Your task to perform on an android device: Open the calendar and show me this week's events? Image 0: 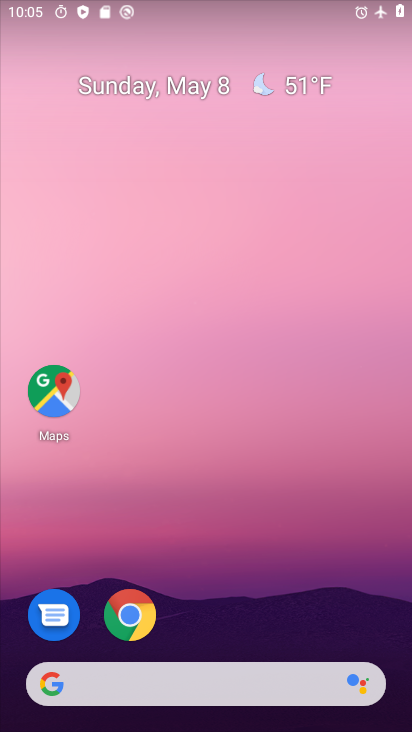
Step 0: drag from (206, 575) to (157, 172)
Your task to perform on an android device: Open the calendar and show me this week's events? Image 1: 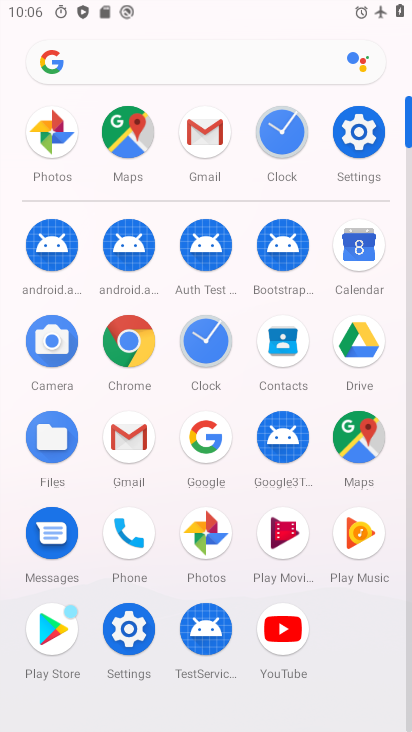
Step 1: click (356, 253)
Your task to perform on an android device: Open the calendar and show me this week's events? Image 2: 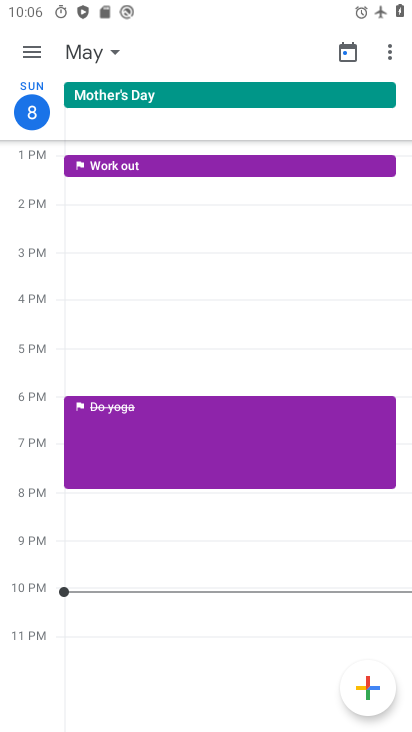
Step 2: click (86, 56)
Your task to perform on an android device: Open the calendar and show me this week's events? Image 3: 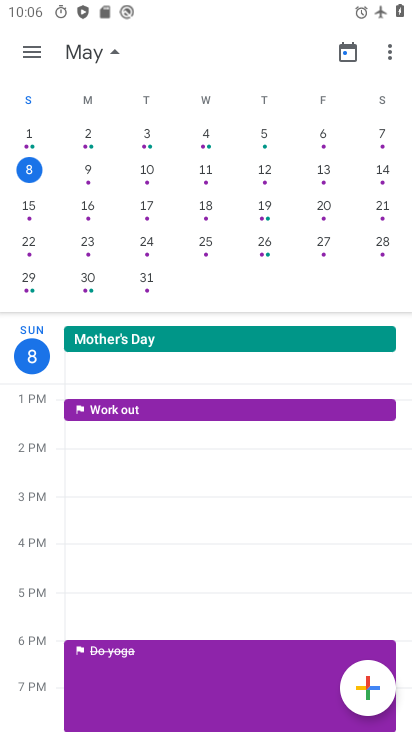
Step 3: click (153, 169)
Your task to perform on an android device: Open the calendar and show me this week's events? Image 4: 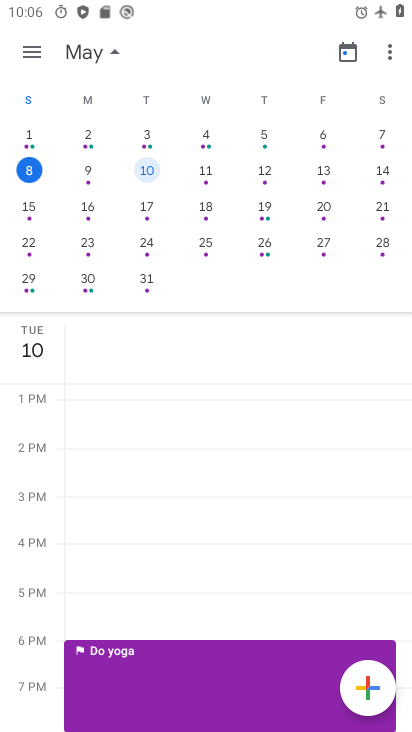
Step 4: click (204, 172)
Your task to perform on an android device: Open the calendar and show me this week's events? Image 5: 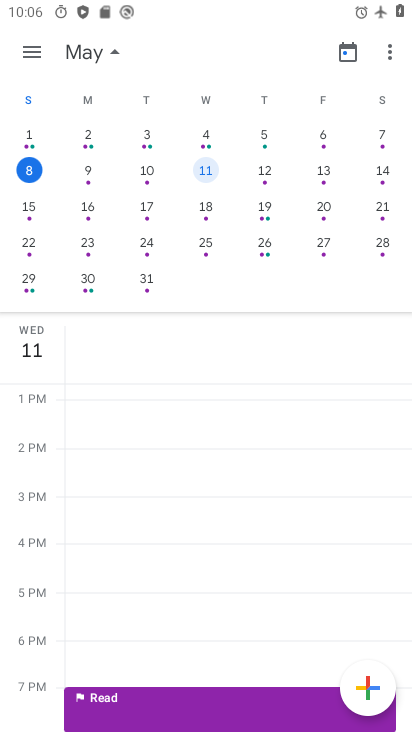
Step 5: drag from (221, 626) to (238, 316)
Your task to perform on an android device: Open the calendar and show me this week's events? Image 6: 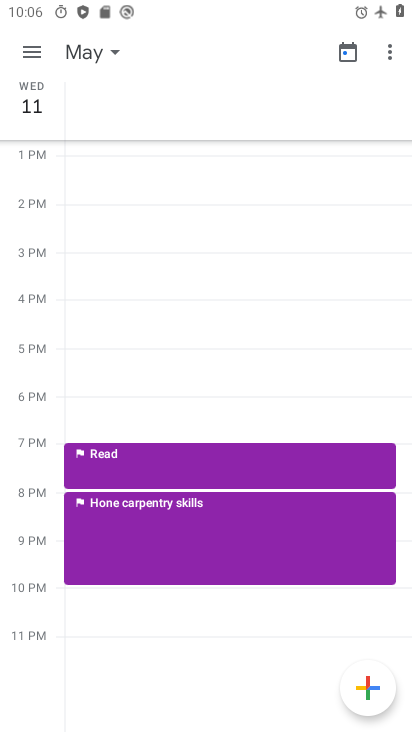
Step 6: drag from (163, 313) to (196, 591)
Your task to perform on an android device: Open the calendar and show me this week's events? Image 7: 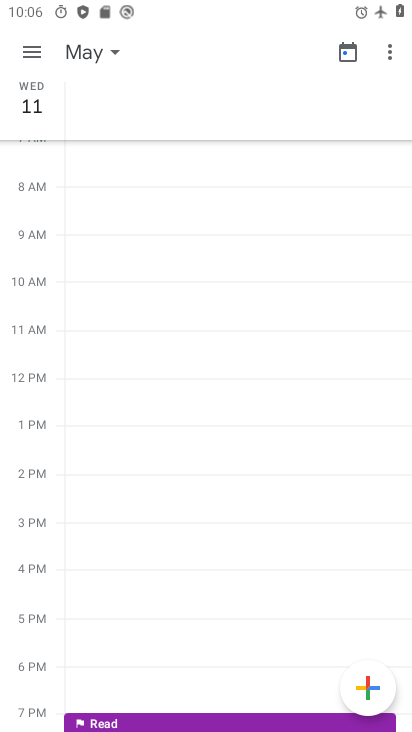
Step 7: drag from (221, 243) to (237, 394)
Your task to perform on an android device: Open the calendar and show me this week's events? Image 8: 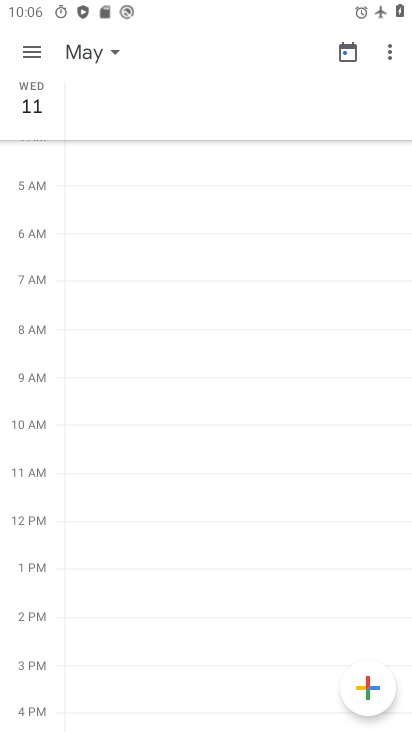
Step 8: click (101, 48)
Your task to perform on an android device: Open the calendar and show me this week's events? Image 9: 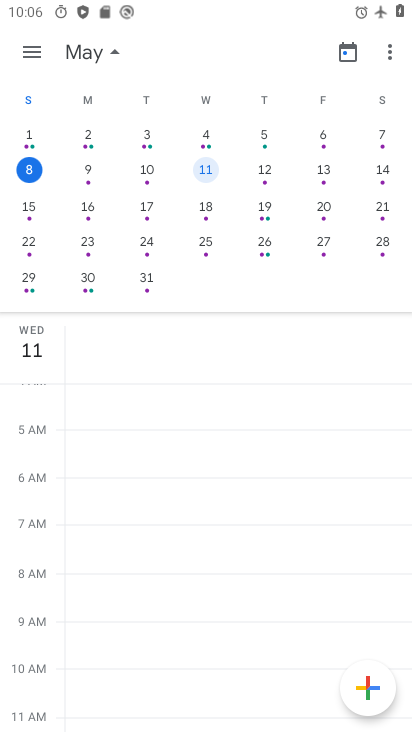
Step 9: click (74, 162)
Your task to perform on an android device: Open the calendar and show me this week's events? Image 10: 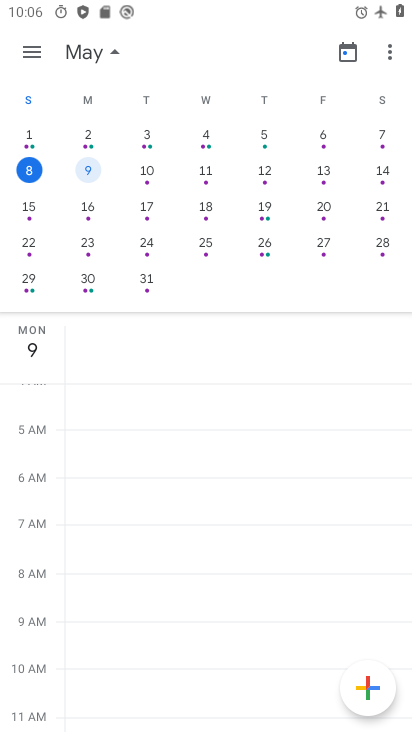
Step 10: click (265, 169)
Your task to perform on an android device: Open the calendar and show me this week's events? Image 11: 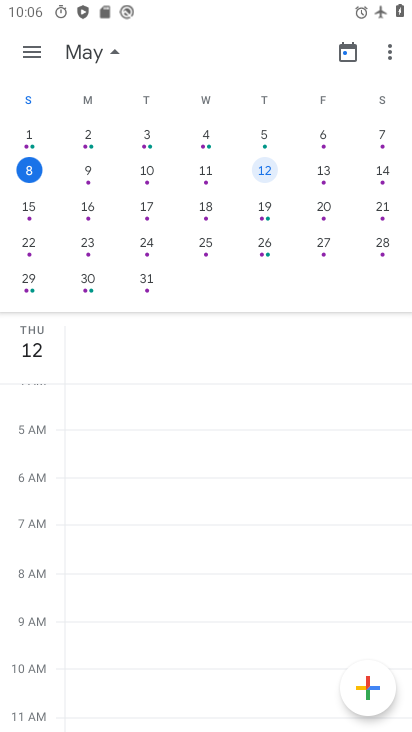
Step 11: click (320, 166)
Your task to perform on an android device: Open the calendar and show me this week's events? Image 12: 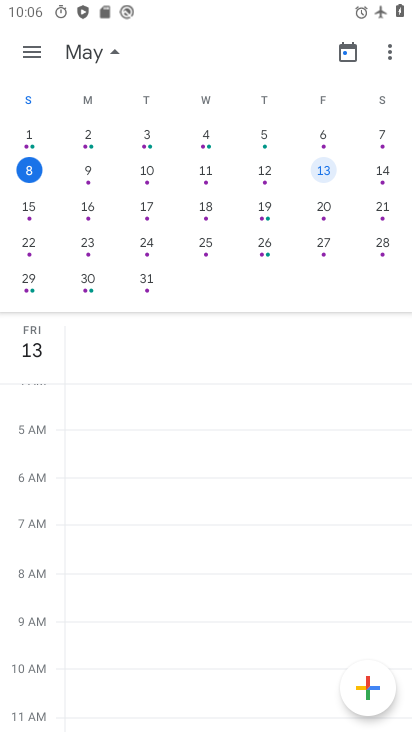
Step 12: click (26, 60)
Your task to perform on an android device: Open the calendar and show me this week's events? Image 13: 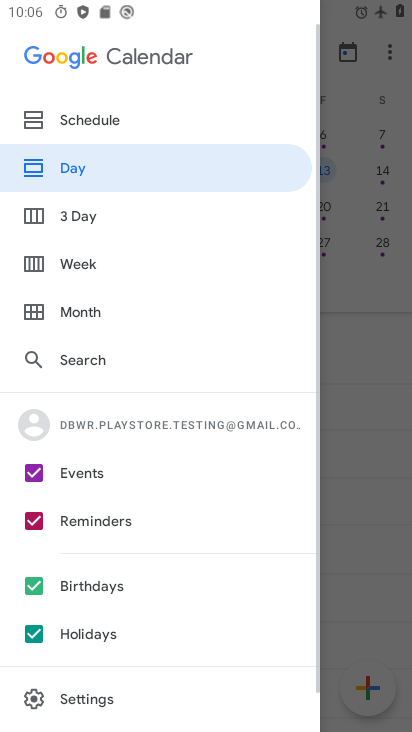
Step 13: click (127, 116)
Your task to perform on an android device: Open the calendar and show me this week's events? Image 14: 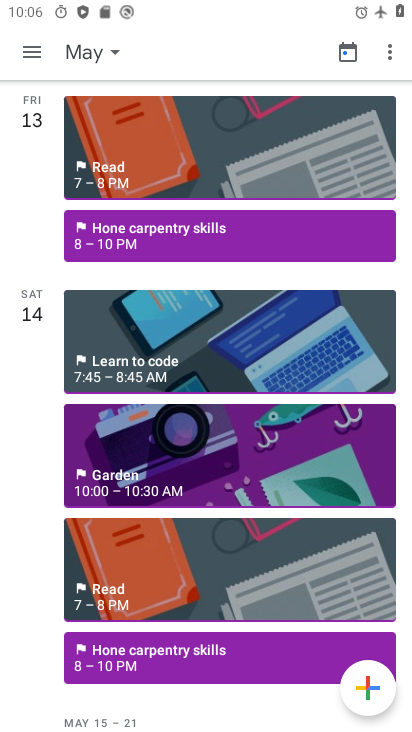
Step 14: task complete